Your task to perform on an android device: Go to internet settings Image 0: 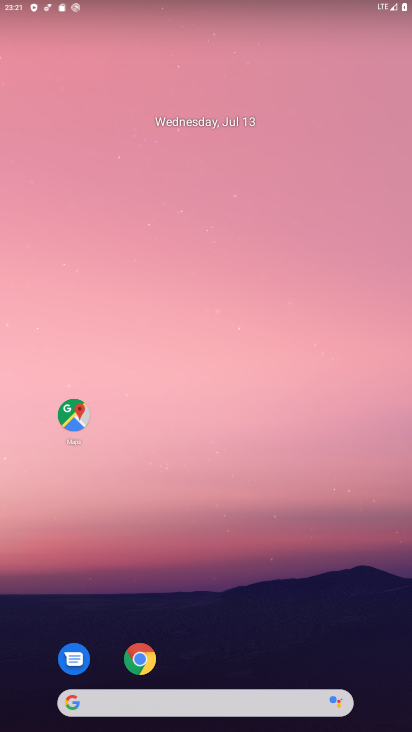
Step 0: drag from (371, 659) to (341, 138)
Your task to perform on an android device: Go to internet settings Image 1: 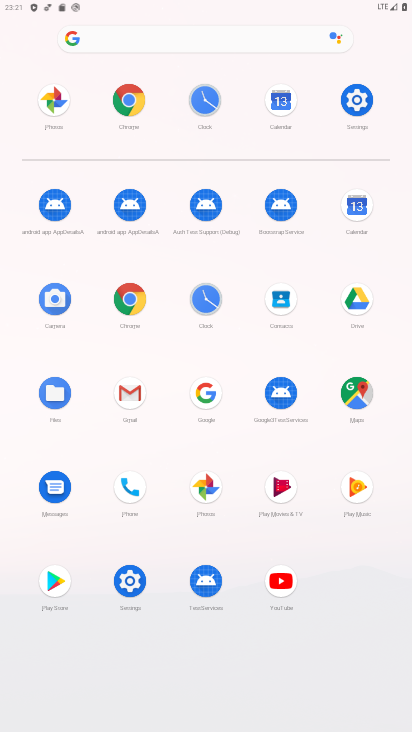
Step 1: click (131, 580)
Your task to perform on an android device: Go to internet settings Image 2: 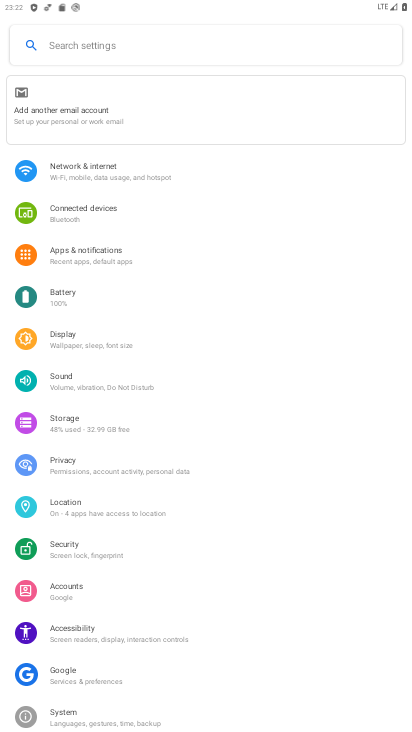
Step 2: click (77, 167)
Your task to perform on an android device: Go to internet settings Image 3: 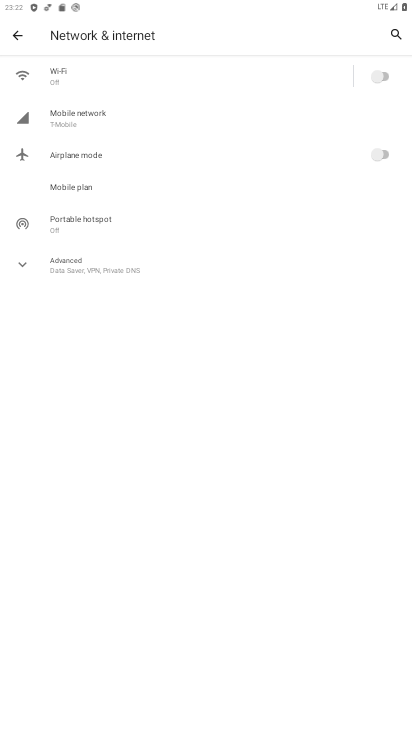
Step 3: click (67, 111)
Your task to perform on an android device: Go to internet settings Image 4: 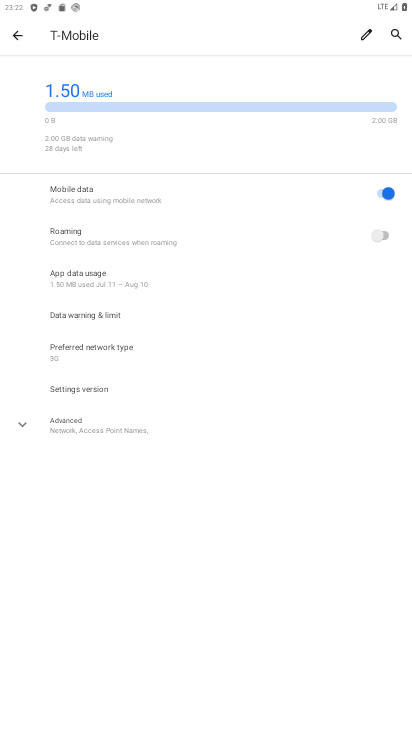
Step 4: click (16, 422)
Your task to perform on an android device: Go to internet settings Image 5: 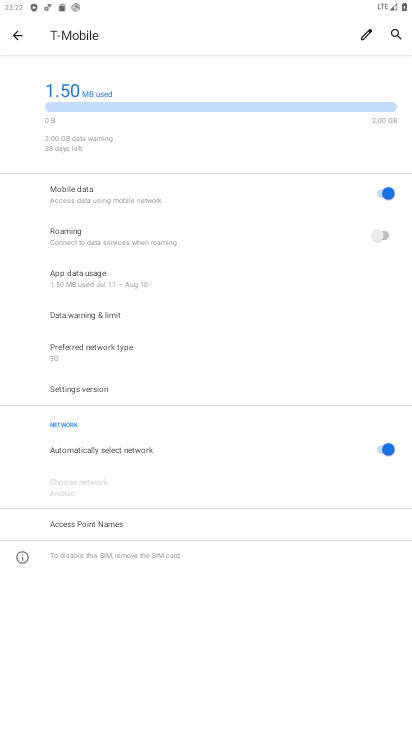
Step 5: task complete